Your task to perform on an android device: Open Google Maps Image 0: 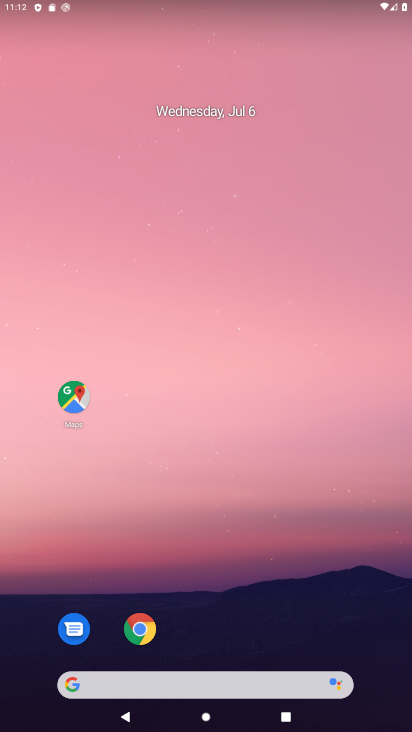
Step 0: click (72, 398)
Your task to perform on an android device: Open Google Maps Image 1: 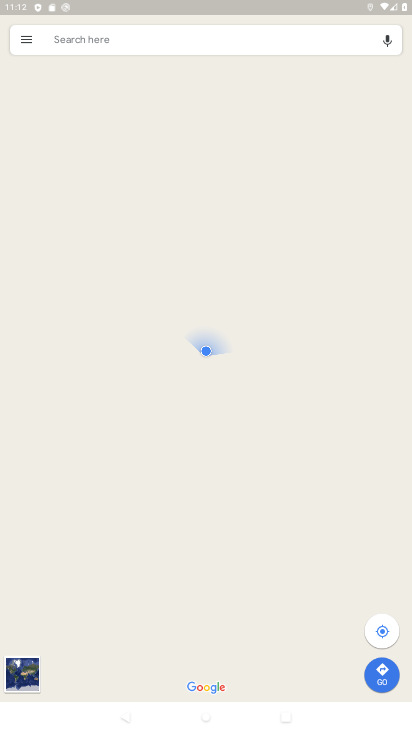
Step 1: task complete